Your task to perform on an android device: turn off javascript in the chrome app Image 0: 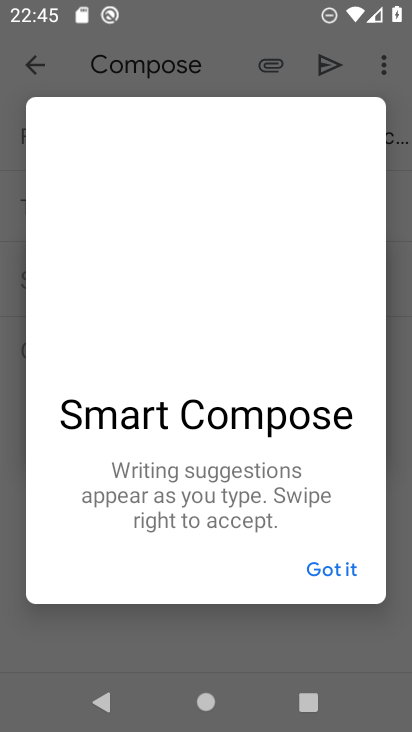
Step 0: press home button
Your task to perform on an android device: turn off javascript in the chrome app Image 1: 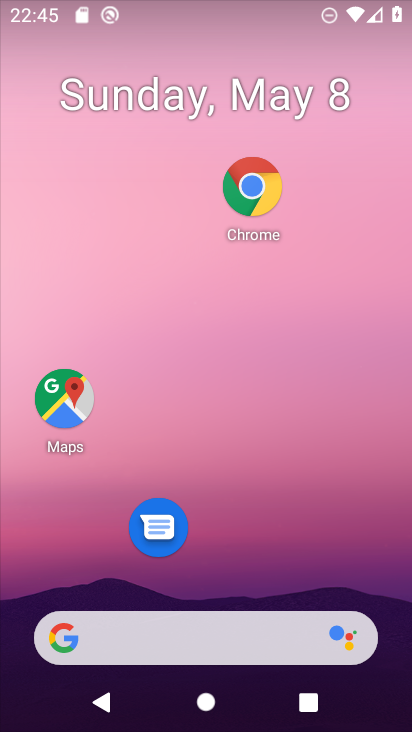
Step 1: drag from (329, 488) to (353, 311)
Your task to perform on an android device: turn off javascript in the chrome app Image 2: 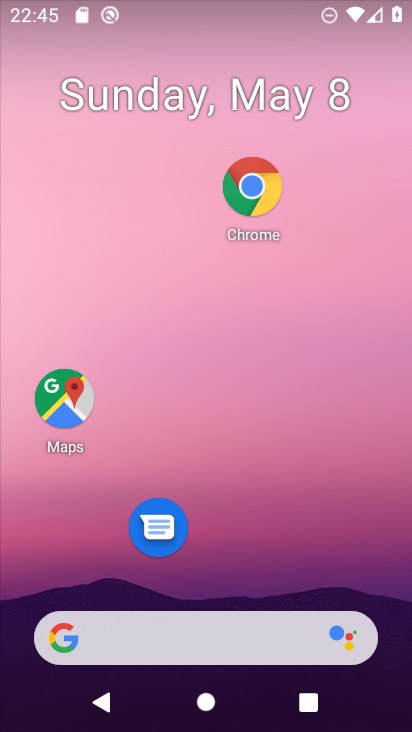
Step 2: drag from (248, 517) to (317, 245)
Your task to perform on an android device: turn off javascript in the chrome app Image 3: 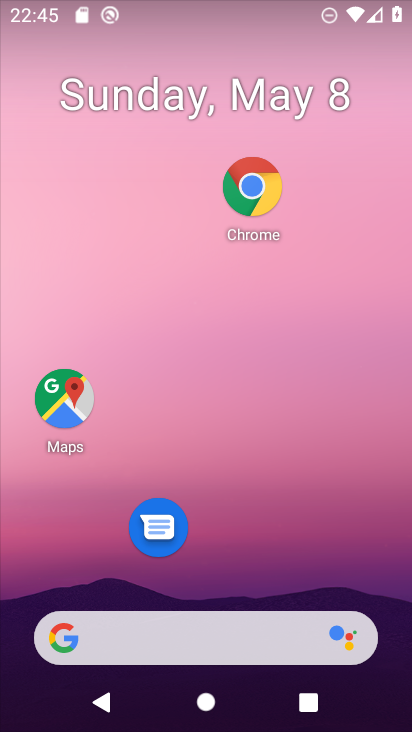
Step 3: drag from (194, 565) to (302, 134)
Your task to perform on an android device: turn off javascript in the chrome app Image 4: 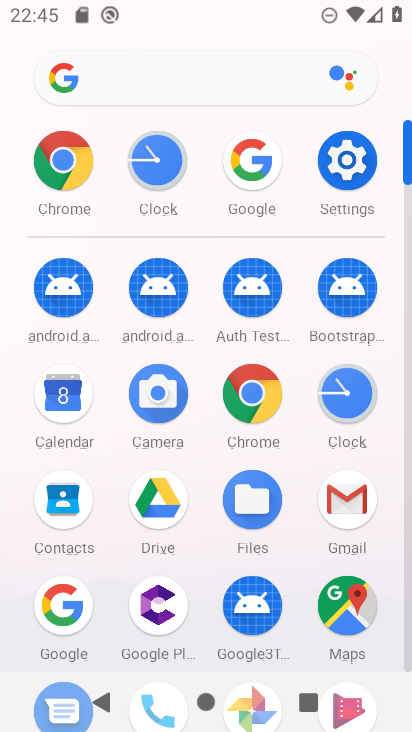
Step 4: click (267, 381)
Your task to perform on an android device: turn off javascript in the chrome app Image 5: 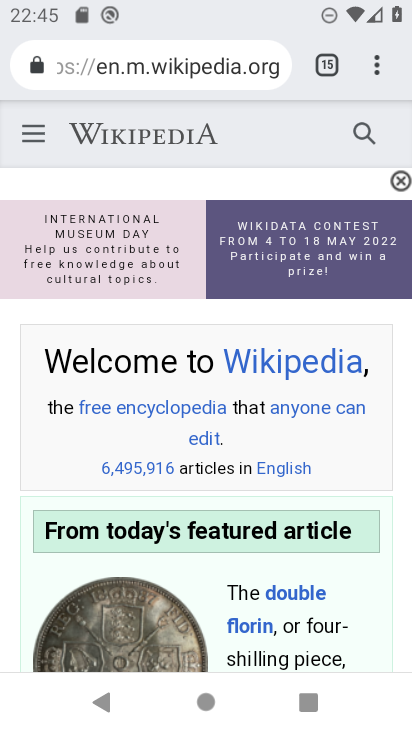
Step 5: click (366, 62)
Your task to perform on an android device: turn off javascript in the chrome app Image 6: 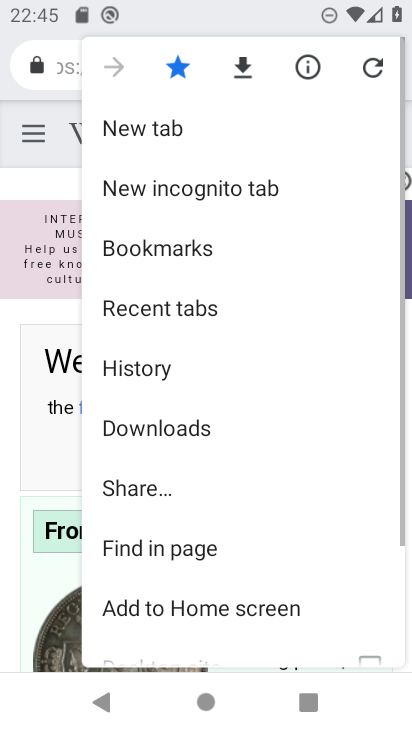
Step 6: drag from (171, 596) to (297, 155)
Your task to perform on an android device: turn off javascript in the chrome app Image 7: 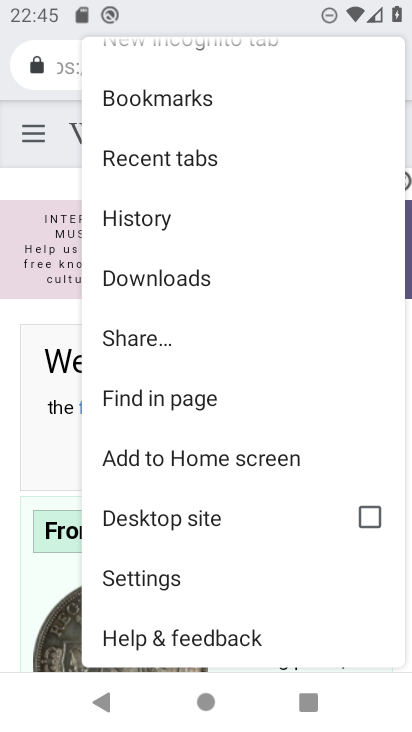
Step 7: click (152, 574)
Your task to perform on an android device: turn off javascript in the chrome app Image 8: 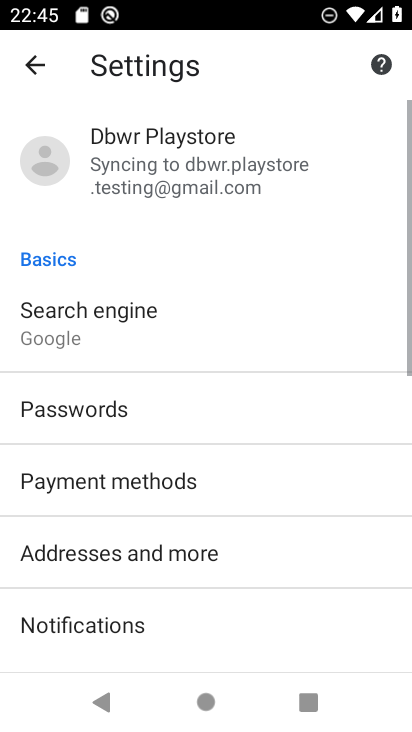
Step 8: drag from (224, 564) to (313, 305)
Your task to perform on an android device: turn off javascript in the chrome app Image 9: 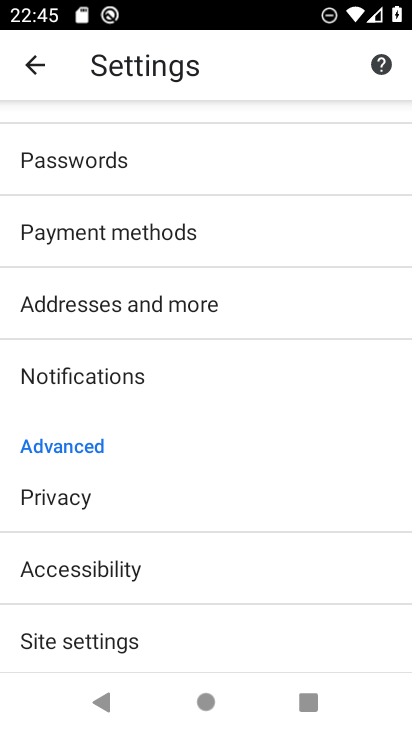
Step 9: drag from (177, 518) to (182, 362)
Your task to perform on an android device: turn off javascript in the chrome app Image 10: 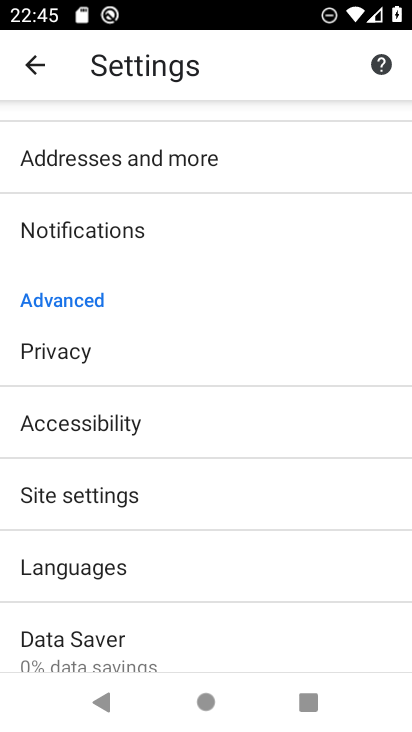
Step 10: click (147, 504)
Your task to perform on an android device: turn off javascript in the chrome app Image 11: 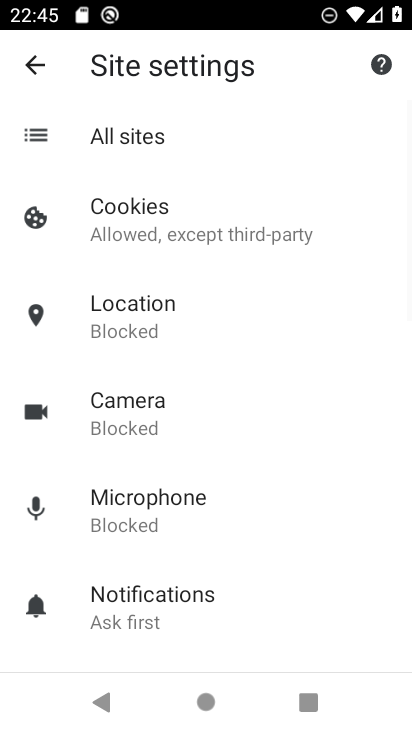
Step 11: drag from (181, 613) to (286, 268)
Your task to perform on an android device: turn off javascript in the chrome app Image 12: 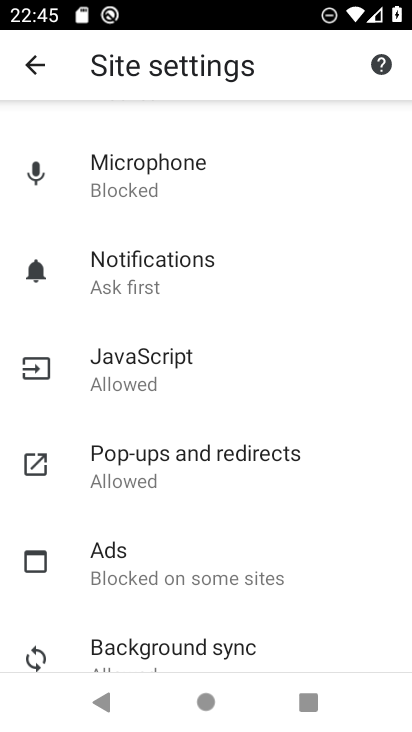
Step 12: click (156, 361)
Your task to perform on an android device: turn off javascript in the chrome app Image 13: 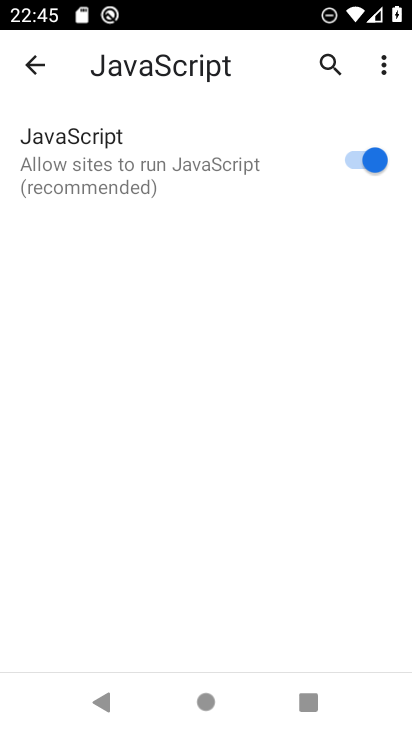
Step 13: click (342, 162)
Your task to perform on an android device: turn off javascript in the chrome app Image 14: 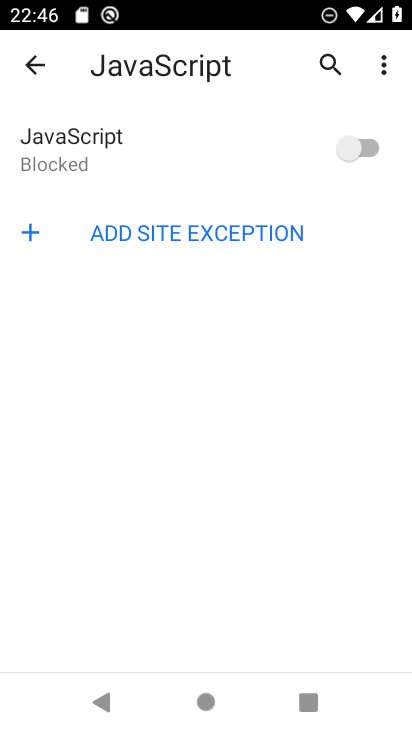
Step 14: task complete